Your task to perform on an android device: turn on javascript in the chrome app Image 0: 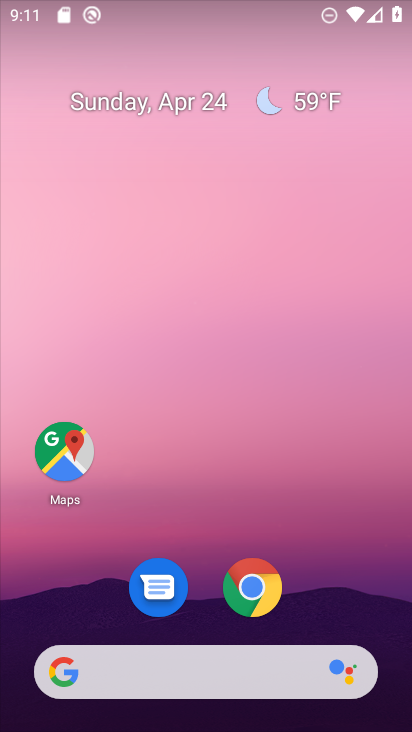
Step 0: click (255, 588)
Your task to perform on an android device: turn on javascript in the chrome app Image 1: 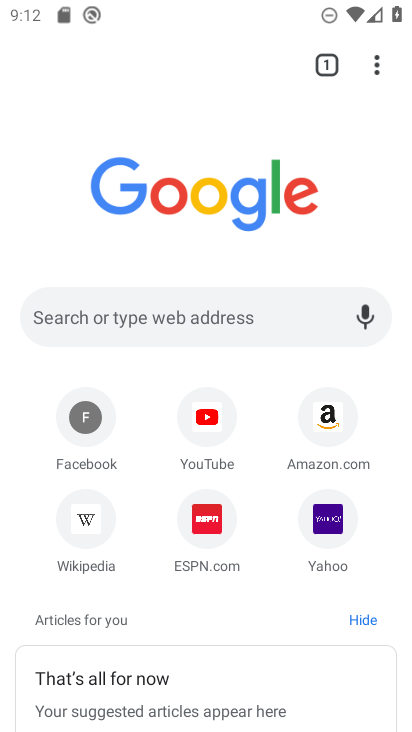
Step 1: click (376, 65)
Your task to perform on an android device: turn on javascript in the chrome app Image 2: 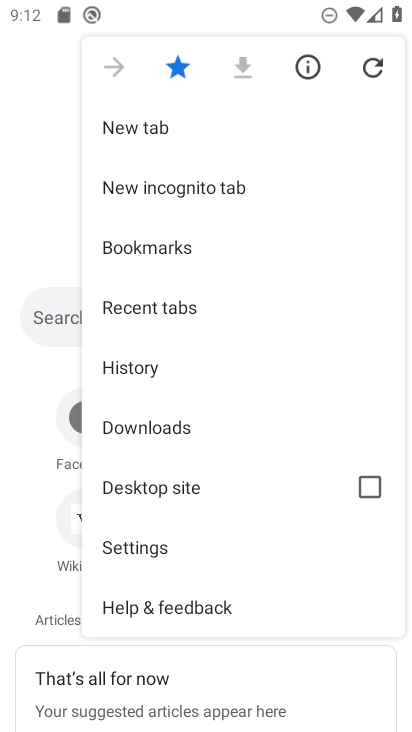
Step 2: click (139, 548)
Your task to perform on an android device: turn on javascript in the chrome app Image 3: 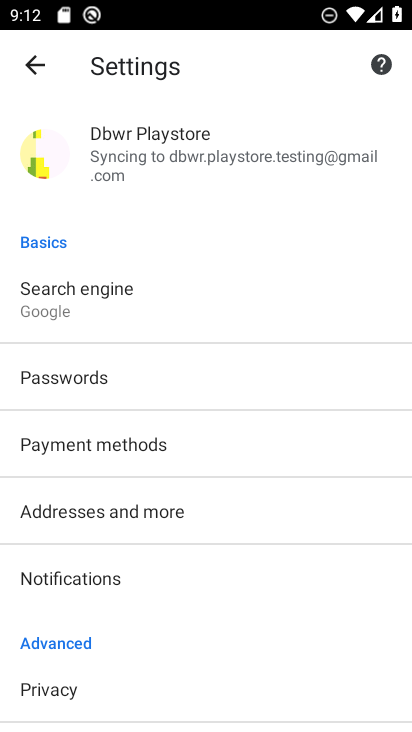
Step 3: drag from (167, 556) to (197, 462)
Your task to perform on an android device: turn on javascript in the chrome app Image 4: 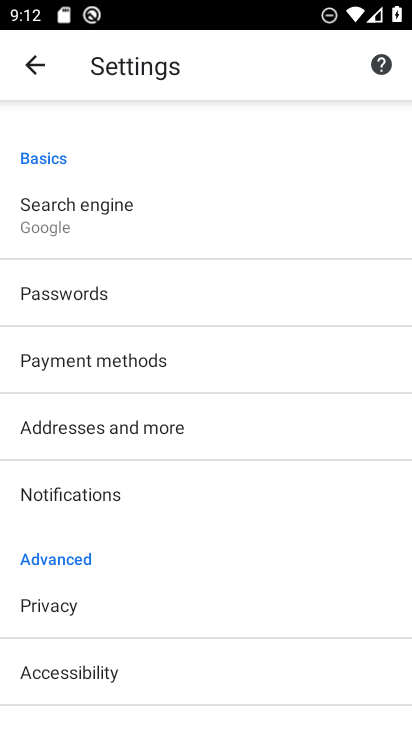
Step 4: drag from (149, 577) to (184, 467)
Your task to perform on an android device: turn on javascript in the chrome app Image 5: 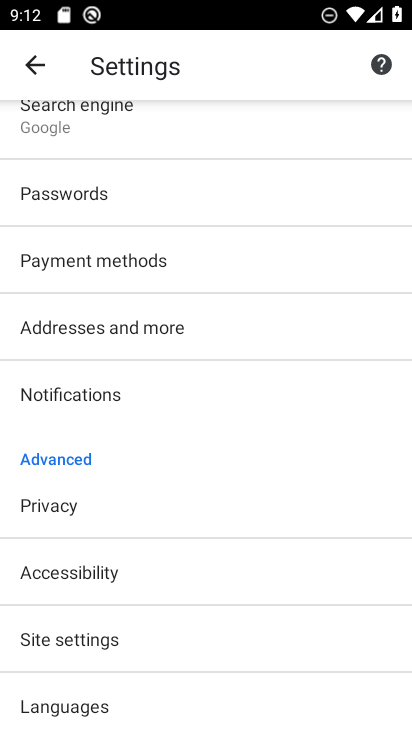
Step 5: click (80, 647)
Your task to perform on an android device: turn on javascript in the chrome app Image 6: 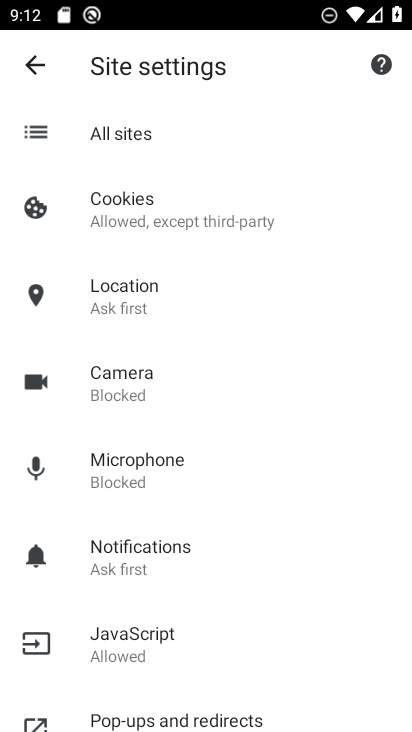
Step 6: click (126, 641)
Your task to perform on an android device: turn on javascript in the chrome app Image 7: 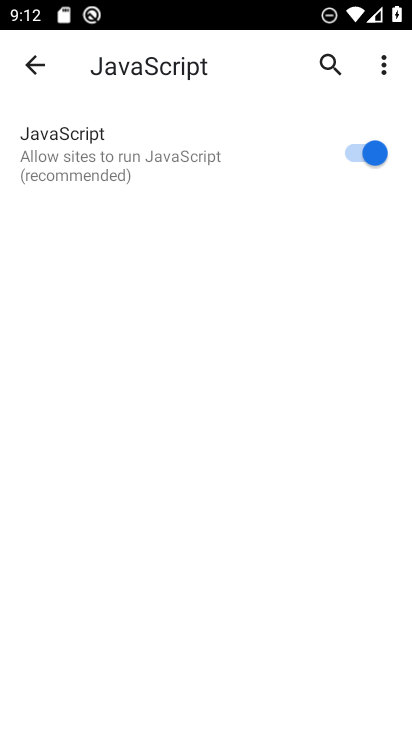
Step 7: task complete